Your task to perform on an android device: Show me recent news Image 0: 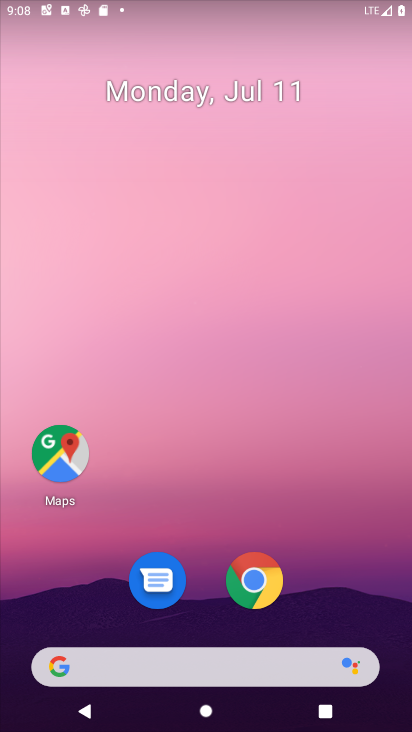
Step 0: click (282, 672)
Your task to perform on an android device: Show me recent news Image 1: 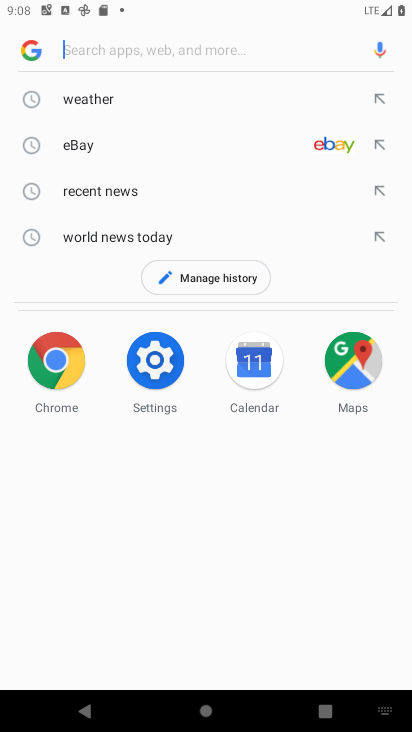
Step 1: click (110, 182)
Your task to perform on an android device: Show me recent news Image 2: 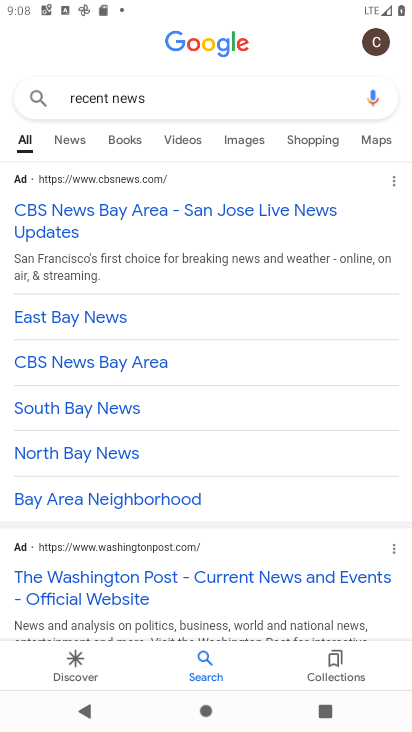
Step 2: click (68, 130)
Your task to perform on an android device: Show me recent news Image 3: 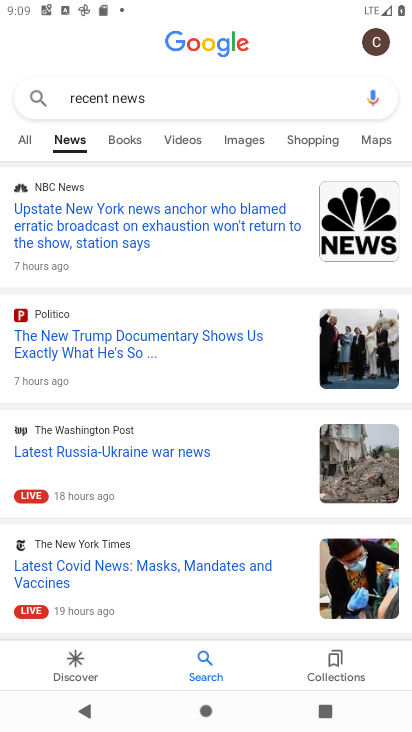
Step 3: task complete